Your task to perform on an android device: toggle data saver in the chrome app Image 0: 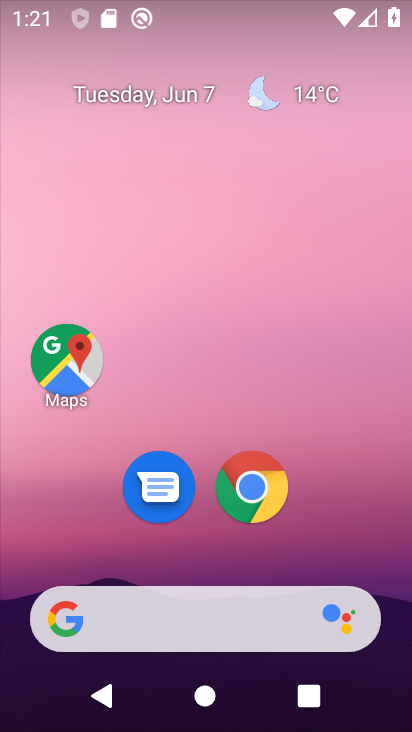
Step 0: click (255, 488)
Your task to perform on an android device: toggle data saver in the chrome app Image 1: 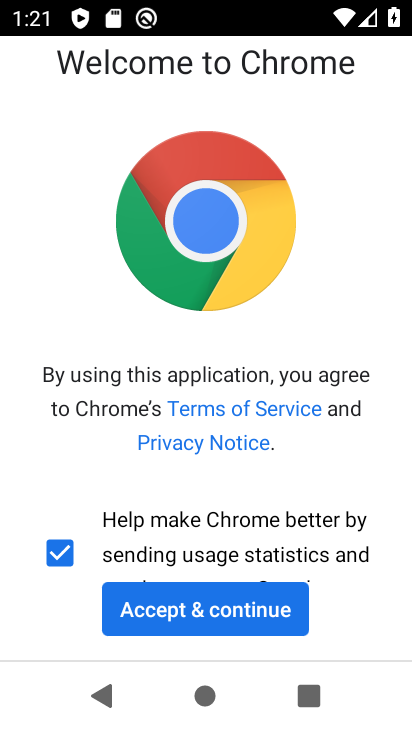
Step 1: click (183, 603)
Your task to perform on an android device: toggle data saver in the chrome app Image 2: 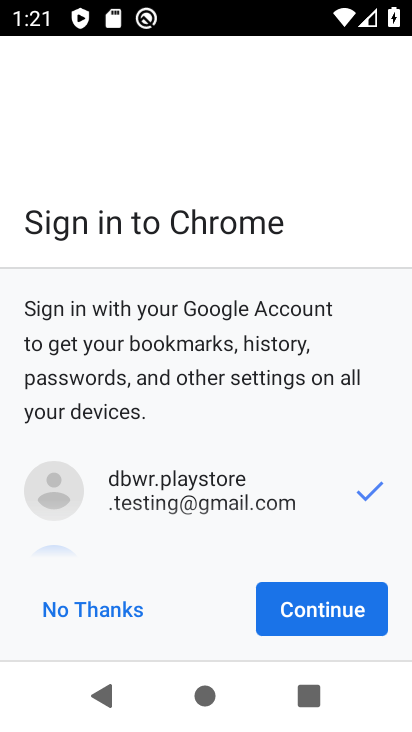
Step 2: click (314, 617)
Your task to perform on an android device: toggle data saver in the chrome app Image 3: 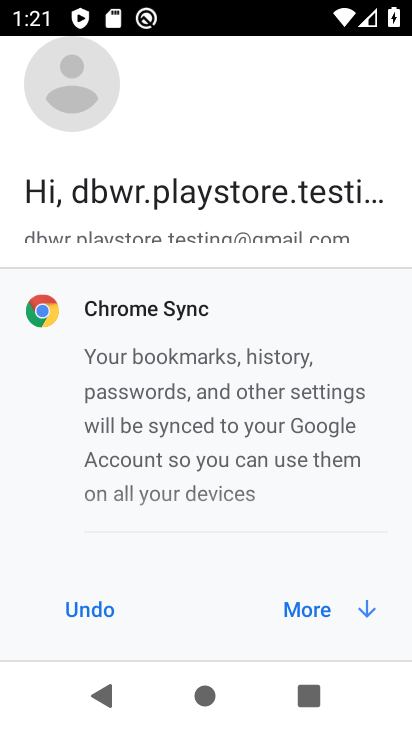
Step 3: click (314, 616)
Your task to perform on an android device: toggle data saver in the chrome app Image 4: 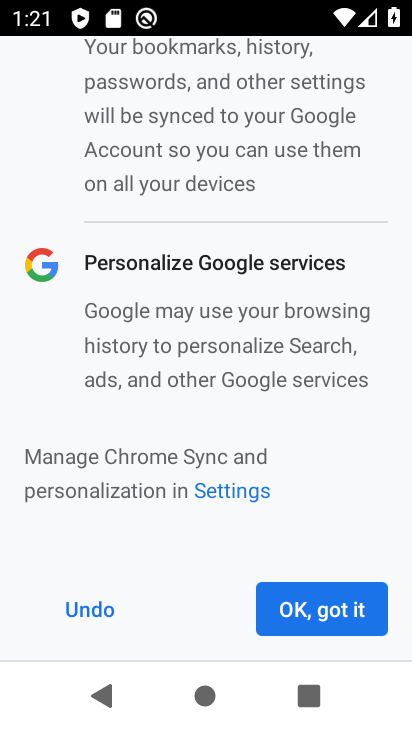
Step 4: click (314, 616)
Your task to perform on an android device: toggle data saver in the chrome app Image 5: 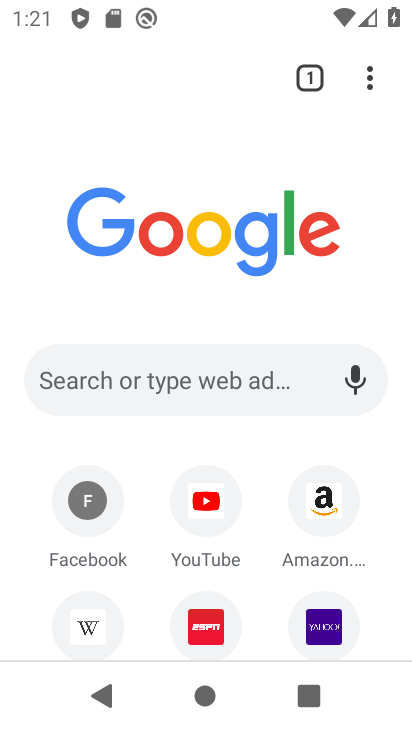
Step 5: click (370, 78)
Your task to perform on an android device: toggle data saver in the chrome app Image 6: 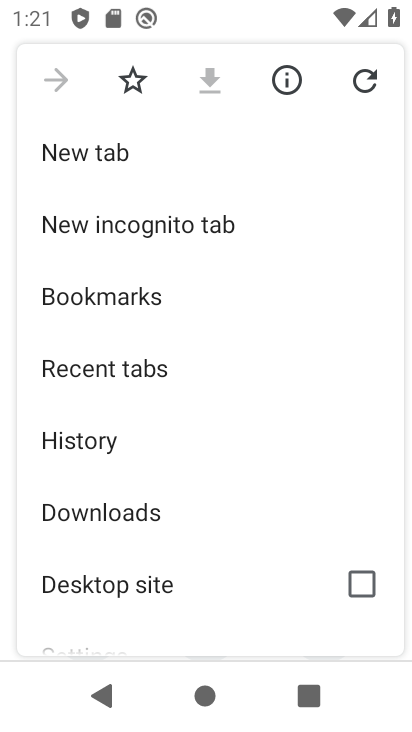
Step 6: drag from (150, 458) to (218, 361)
Your task to perform on an android device: toggle data saver in the chrome app Image 7: 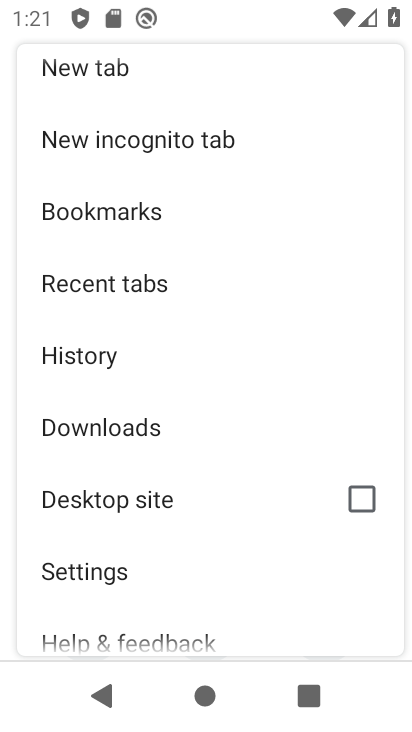
Step 7: click (98, 577)
Your task to perform on an android device: toggle data saver in the chrome app Image 8: 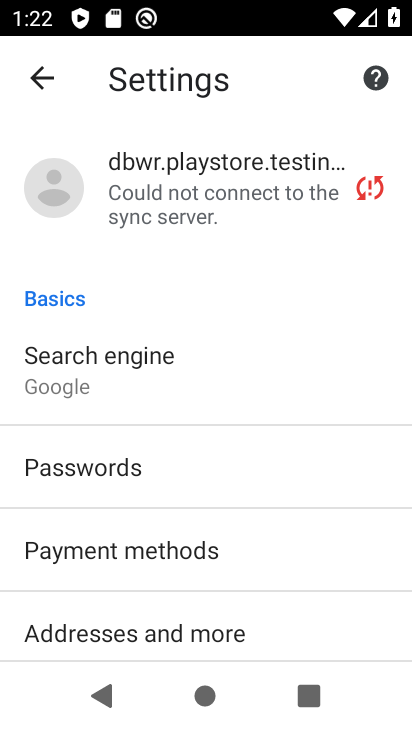
Step 8: drag from (132, 483) to (195, 363)
Your task to perform on an android device: toggle data saver in the chrome app Image 9: 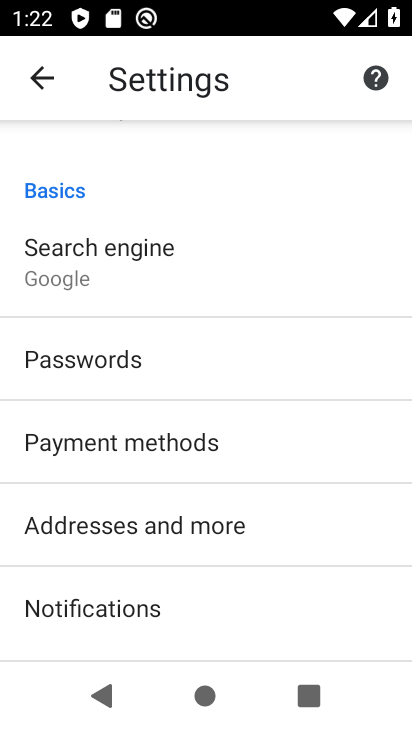
Step 9: drag from (98, 541) to (174, 408)
Your task to perform on an android device: toggle data saver in the chrome app Image 10: 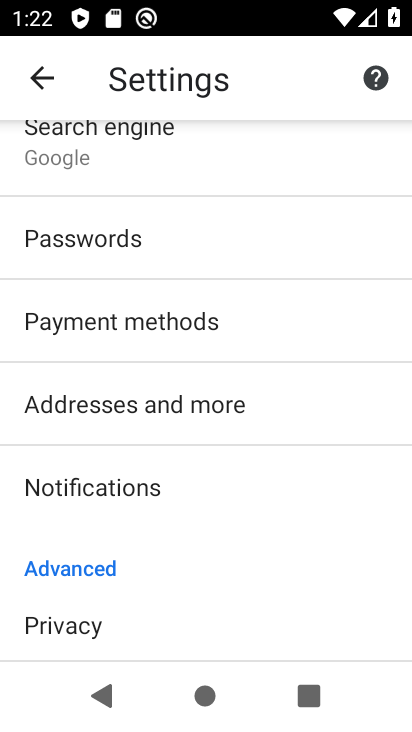
Step 10: drag from (110, 521) to (201, 397)
Your task to perform on an android device: toggle data saver in the chrome app Image 11: 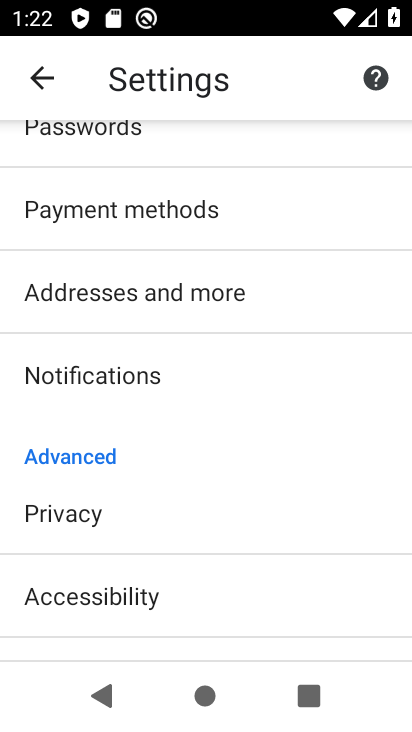
Step 11: drag from (109, 564) to (200, 433)
Your task to perform on an android device: toggle data saver in the chrome app Image 12: 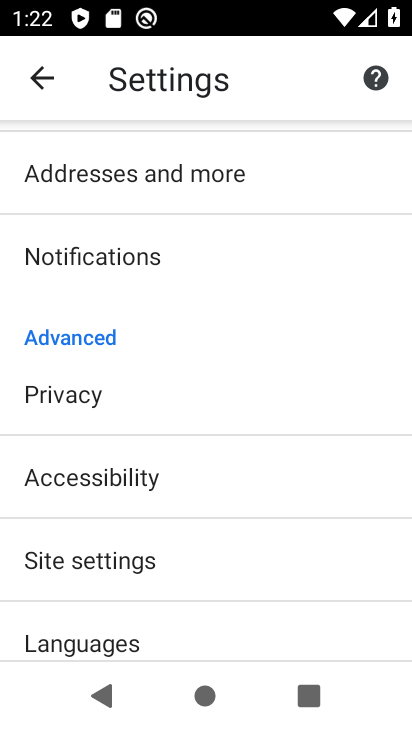
Step 12: drag from (82, 574) to (185, 446)
Your task to perform on an android device: toggle data saver in the chrome app Image 13: 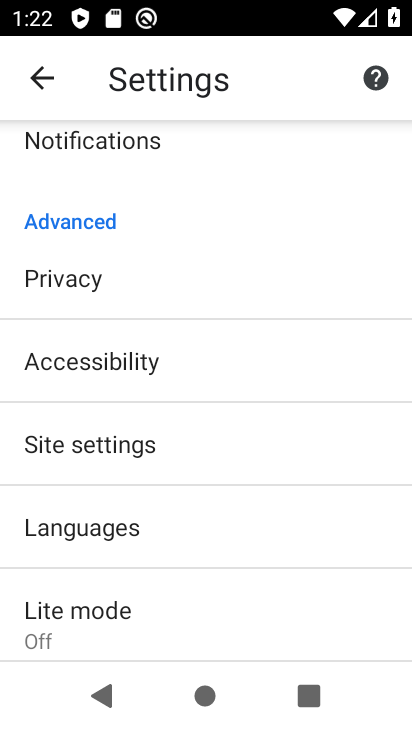
Step 13: click (116, 605)
Your task to perform on an android device: toggle data saver in the chrome app Image 14: 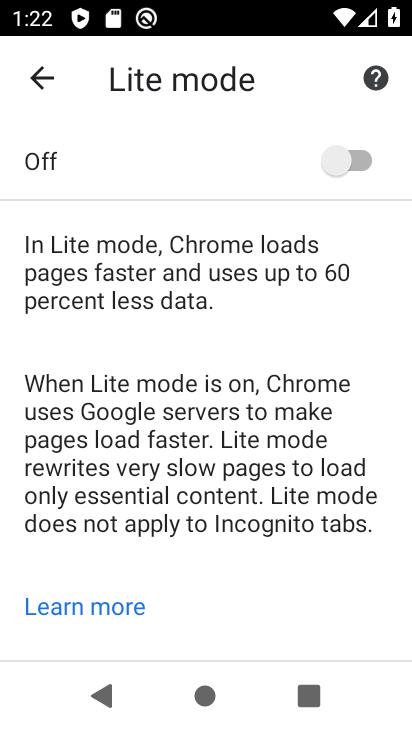
Step 14: click (334, 163)
Your task to perform on an android device: toggle data saver in the chrome app Image 15: 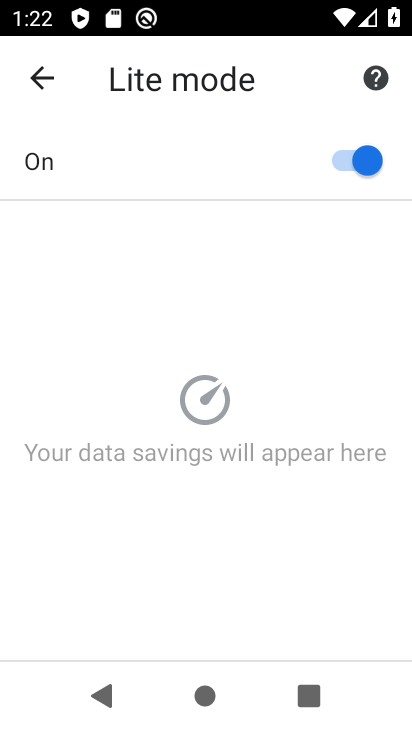
Step 15: task complete